Your task to perform on an android device: Open wifi settings Image 0: 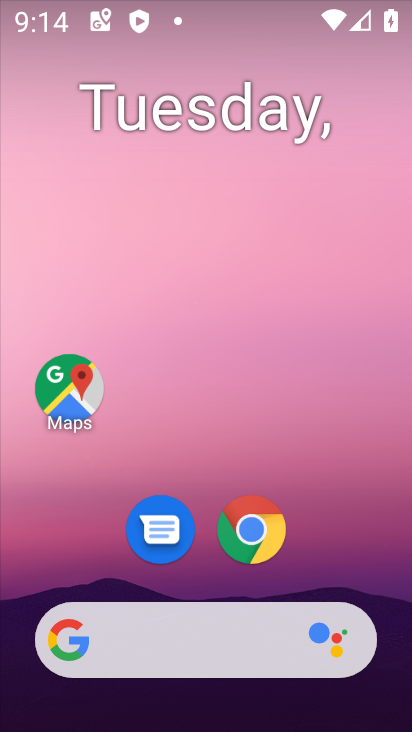
Step 0: drag from (191, 585) to (260, 120)
Your task to perform on an android device: Open wifi settings Image 1: 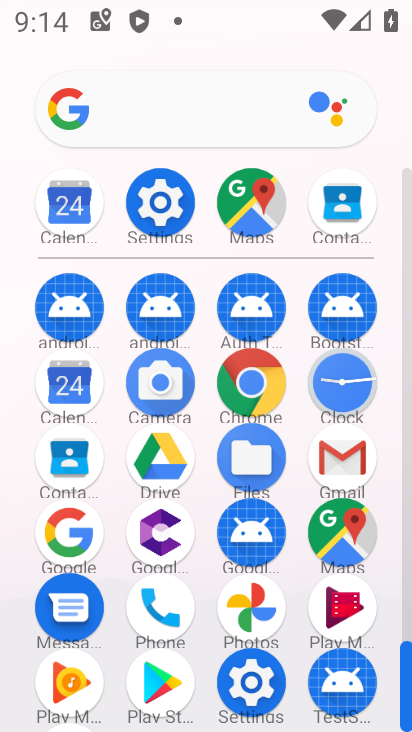
Step 1: click (165, 226)
Your task to perform on an android device: Open wifi settings Image 2: 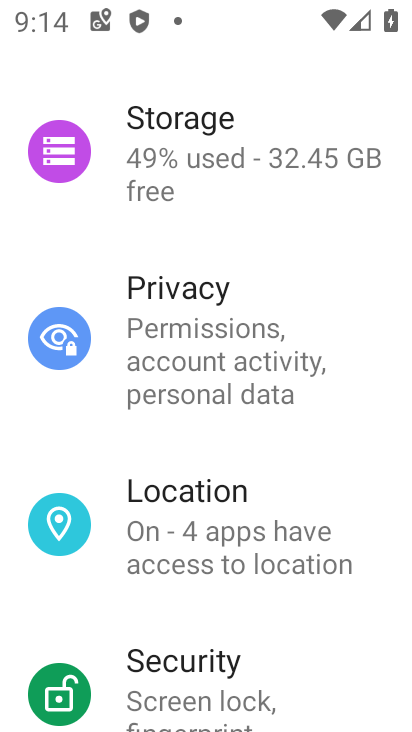
Step 2: drag from (251, 309) to (241, 620)
Your task to perform on an android device: Open wifi settings Image 3: 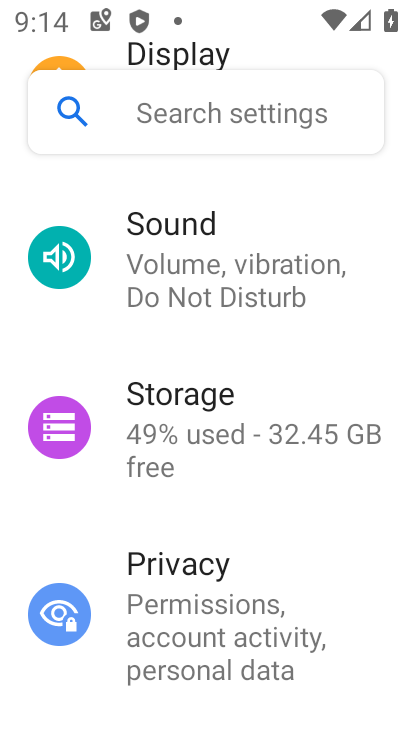
Step 3: drag from (223, 254) to (208, 704)
Your task to perform on an android device: Open wifi settings Image 4: 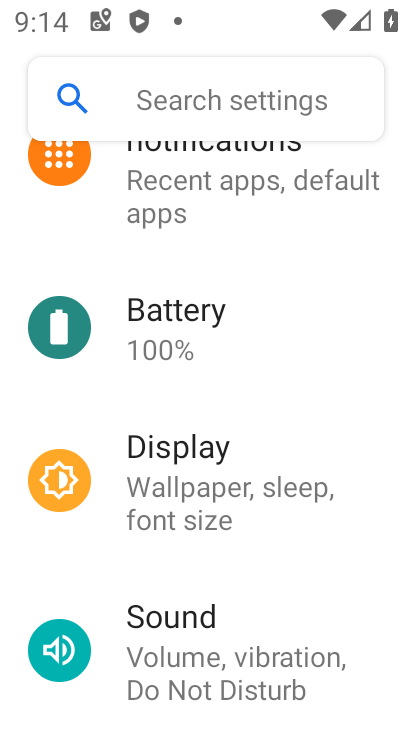
Step 4: drag from (197, 254) to (196, 674)
Your task to perform on an android device: Open wifi settings Image 5: 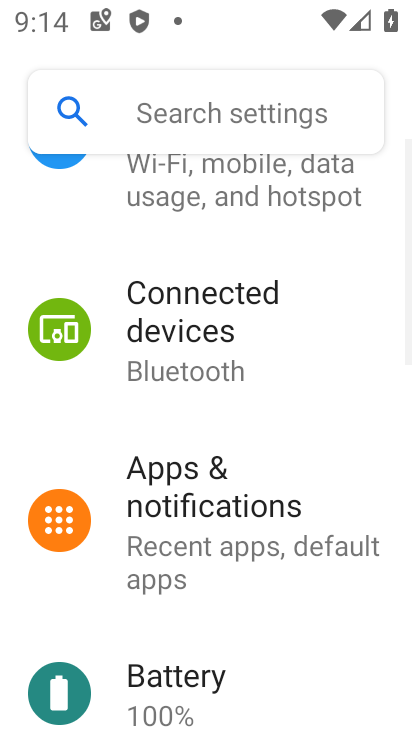
Step 5: drag from (208, 320) to (98, 723)
Your task to perform on an android device: Open wifi settings Image 6: 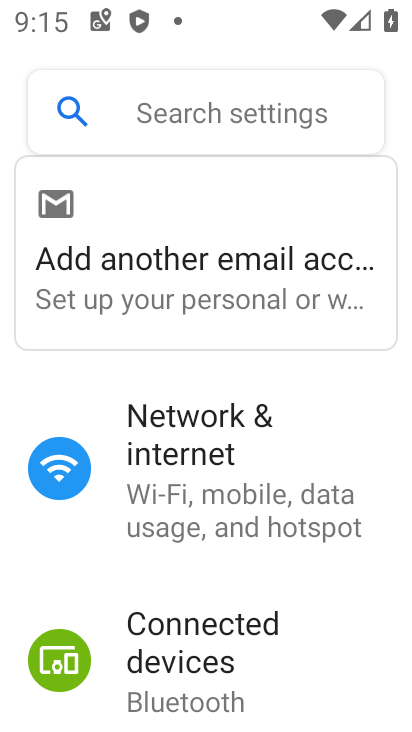
Step 6: click (177, 446)
Your task to perform on an android device: Open wifi settings Image 7: 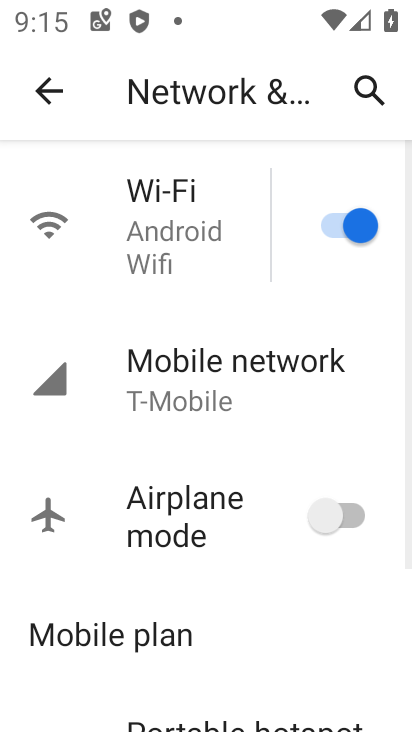
Step 7: click (167, 216)
Your task to perform on an android device: Open wifi settings Image 8: 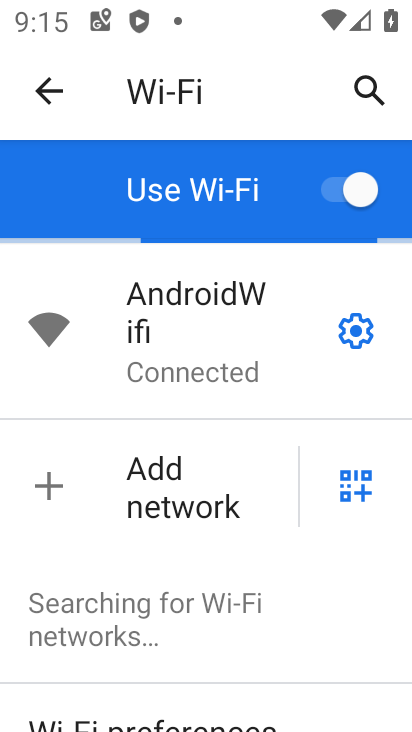
Step 8: task complete